Your task to perform on an android device: Is it going to rain this weekend? Image 0: 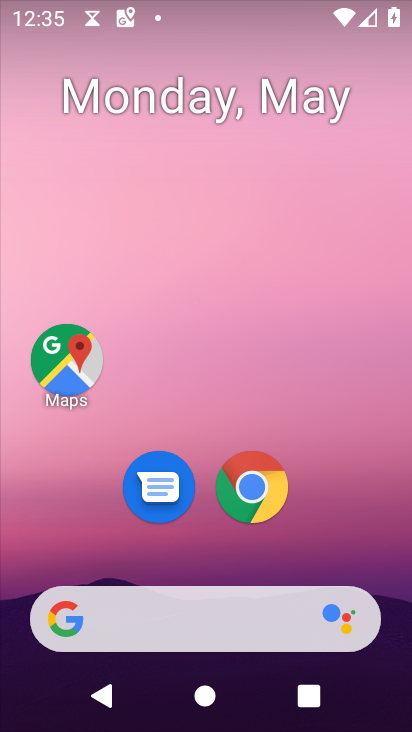
Step 0: click (155, 614)
Your task to perform on an android device: Is it going to rain this weekend? Image 1: 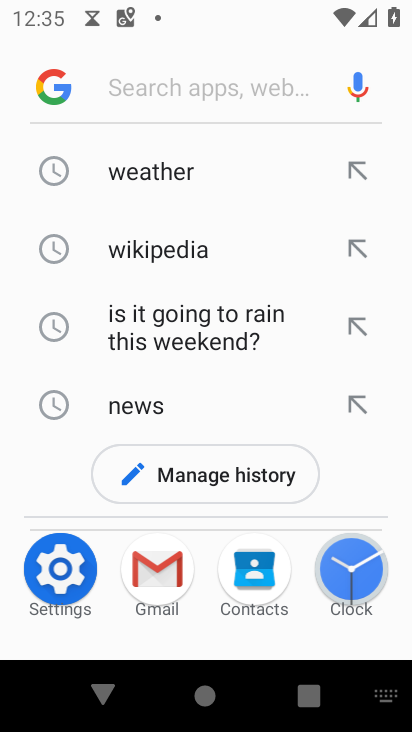
Step 1: type "is it going to rain this weekend"
Your task to perform on an android device: Is it going to rain this weekend? Image 2: 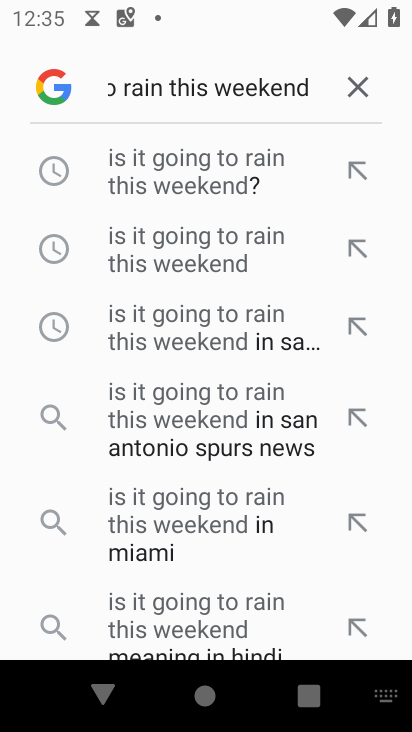
Step 2: click (218, 184)
Your task to perform on an android device: Is it going to rain this weekend? Image 3: 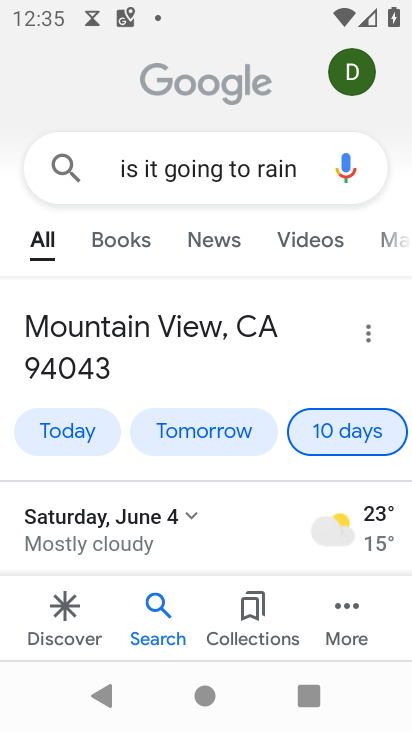
Step 3: task complete